Your task to perform on an android device: Go to wifi settings Image 0: 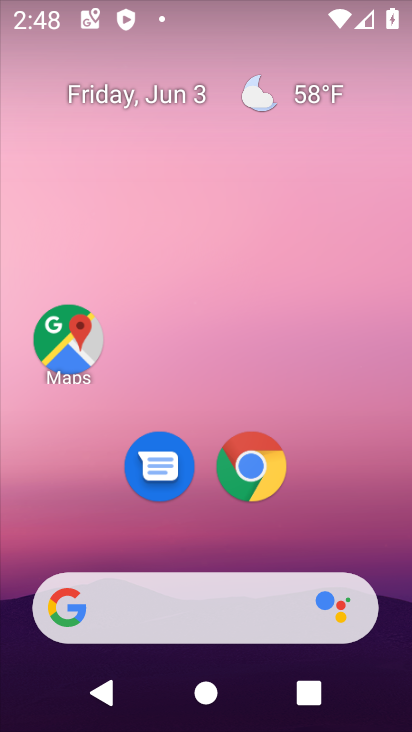
Step 0: drag from (343, 455) to (266, 125)
Your task to perform on an android device: Go to wifi settings Image 1: 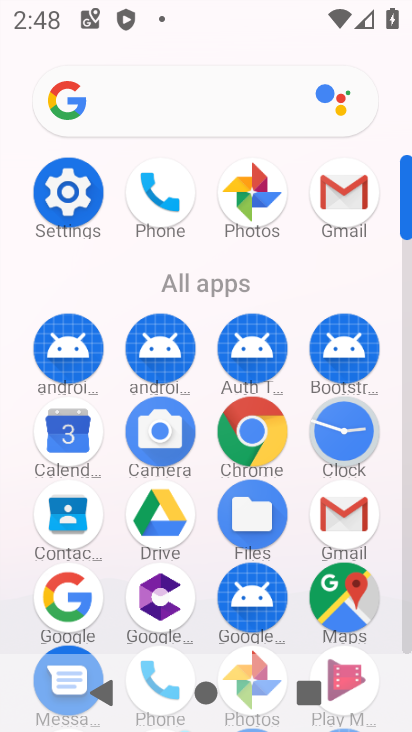
Step 1: click (94, 189)
Your task to perform on an android device: Go to wifi settings Image 2: 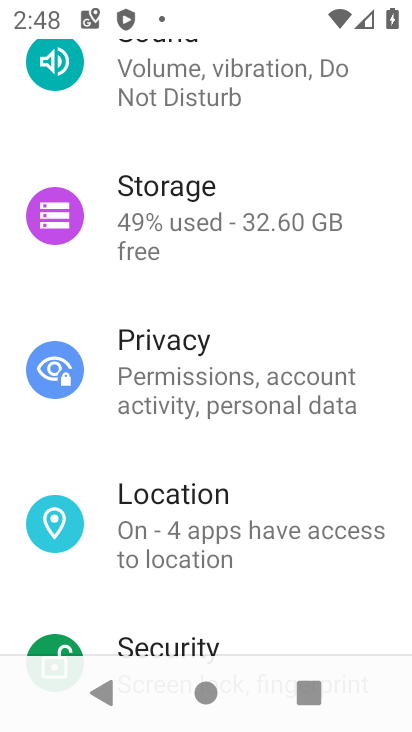
Step 2: drag from (208, 132) to (217, 563)
Your task to perform on an android device: Go to wifi settings Image 3: 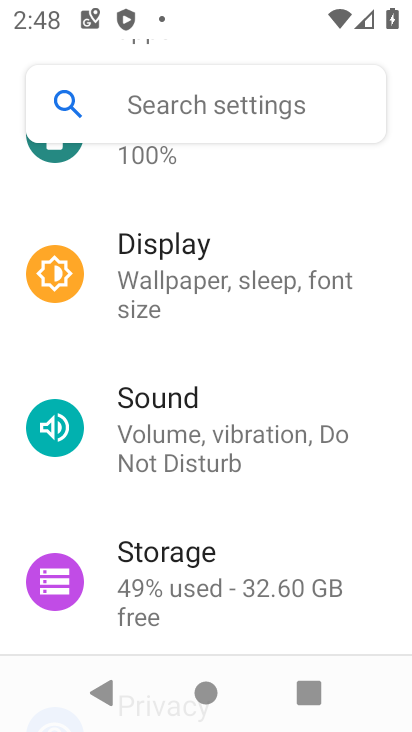
Step 3: drag from (360, 209) to (371, 630)
Your task to perform on an android device: Go to wifi settings Image 4: 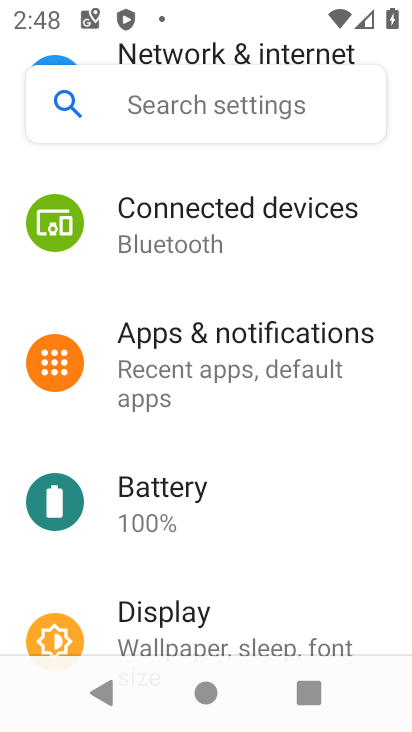
Step 4: drag from (345, 212) to (353, 587)
Your task to perform on an android device: Go to wifi settings Image 5: 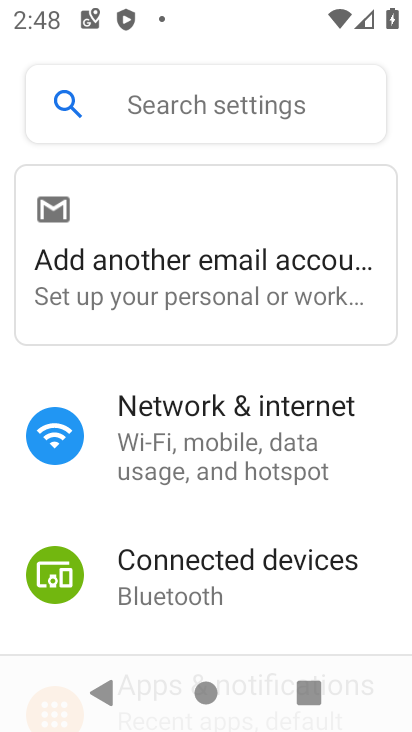
Step 5: click (285, 371)
Your task to perform on an android device: Go to wifi settings Image 6: 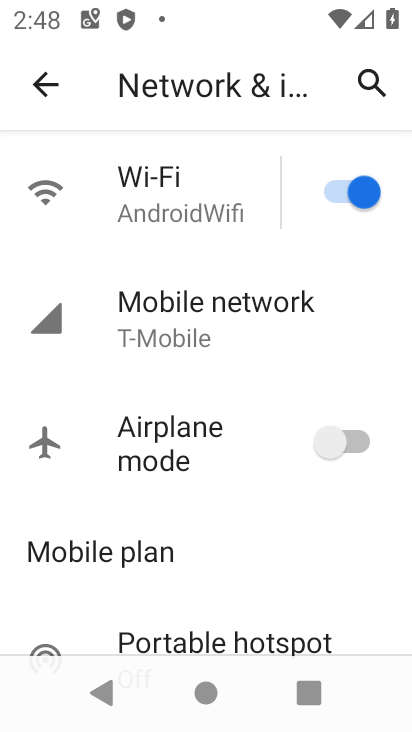
Step 6: click (145, 194)
Your task to perform on an android device: Go to wifi settings Image 7: 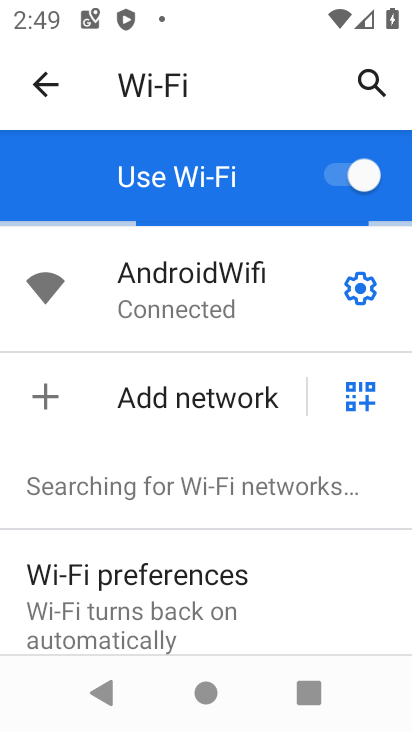
Step 7: task complete